Your task to perform on an android device: Search for Mexican restaurants on Maps Image 0: 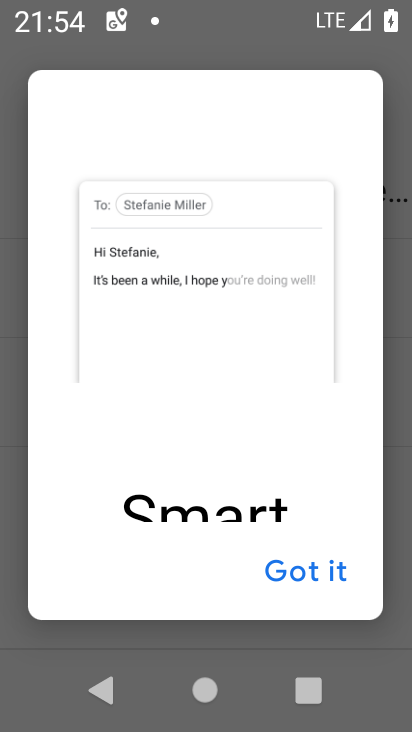
Step 0: press home button
Your task to perform on an android device: Search for Mexican restaurants on Maps Image 1: 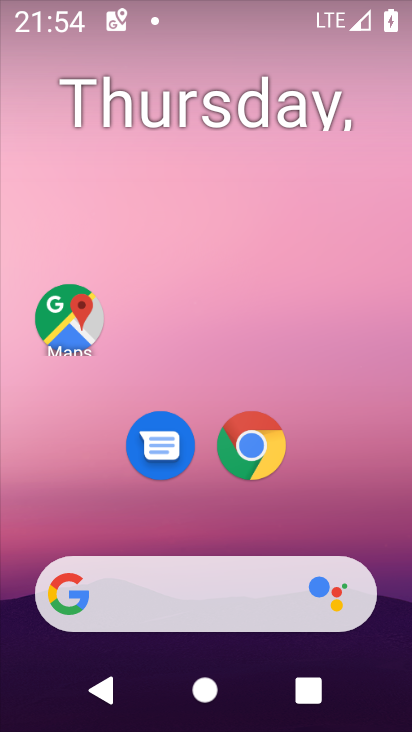
Step 1: drag from (240, 425) to (226, 186)
Your task to perform on an android device: Search for Mexican restaurants on Maps Image 2: 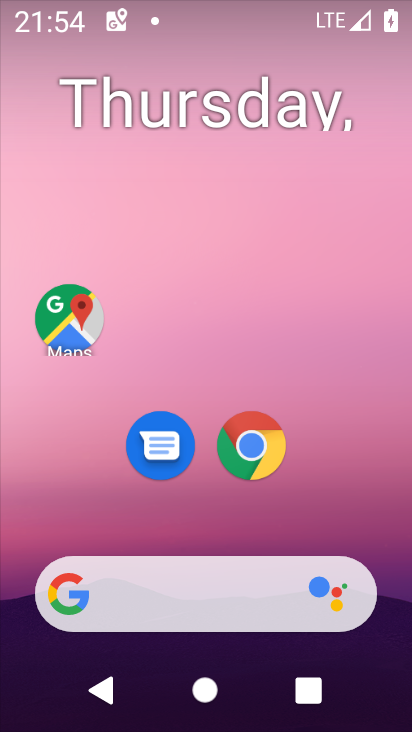
Step 2: drag from (222, 528) to (255, 158)
Your task to perform on an android device: Search for Mexican restaurants on Maps Image 3: 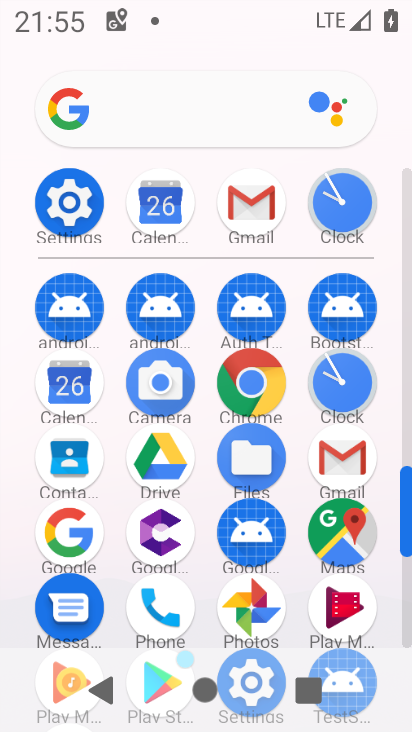
Step 3: click (352, 539)
Your task to perform on an android device: Search for Mexican restaurants on Maps Image 4: 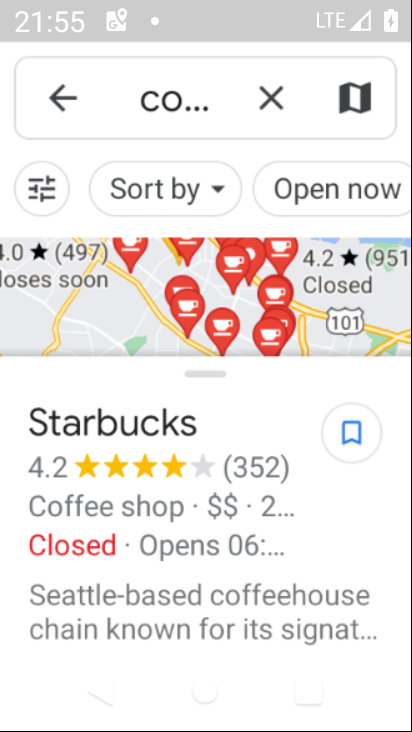
Step 4: click (267, 109)
Your task to perform on an android device: Search for Mexican restaurants on Maps Image 5: 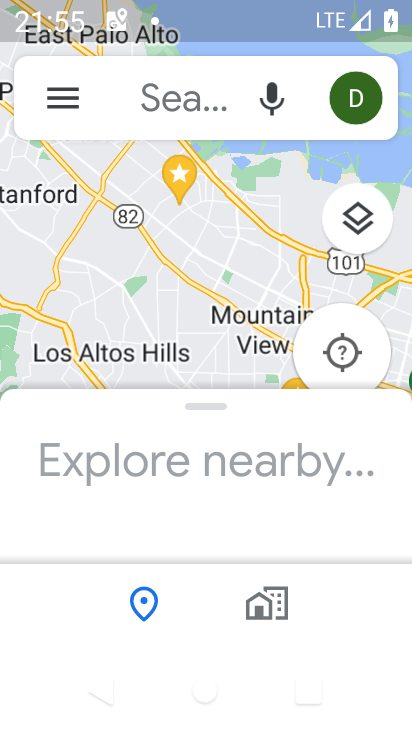
Step 5: click (168, 111)
Your task to perform on an android device: Search for Mexican restaurants on Maps Image 6: 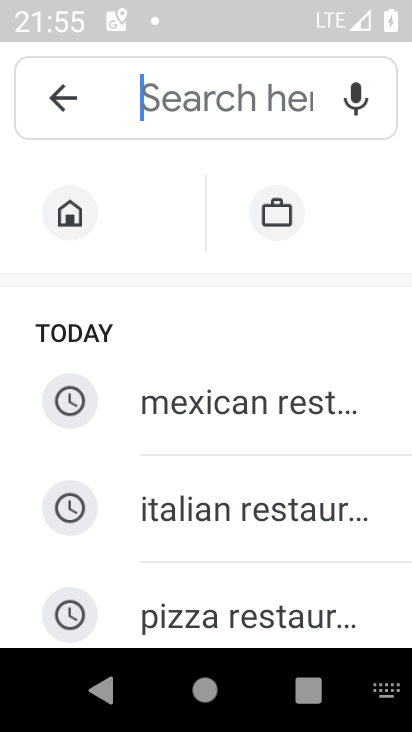
Step 6: type "mexican restaurants"
Your task to perform on an android device: Search for Mexican restaurants on Maps Image 7: 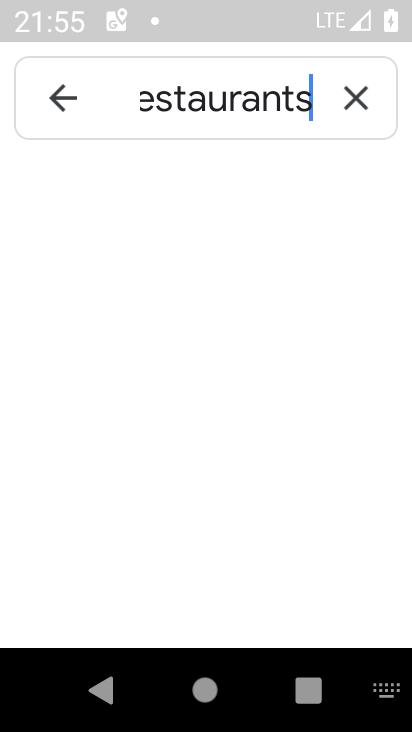
Step 7: type ""
Your task to perform on an android device: Search for Mexican restaurants on Maps Image 8: 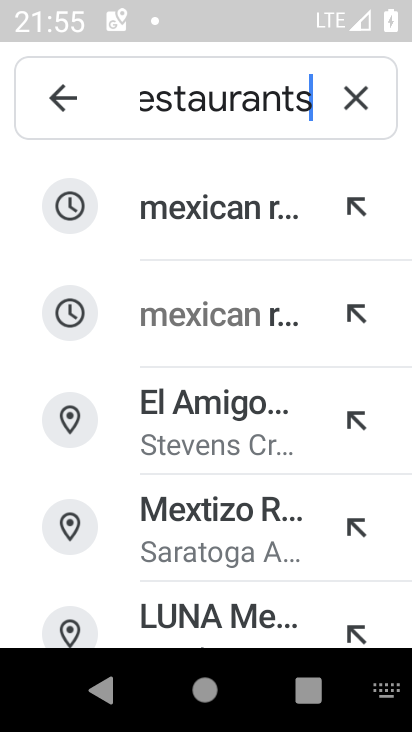
Step 8: click (145, 212)
Your task to perform on an android device: Search for Mexican restaurants on Maps Image 9: 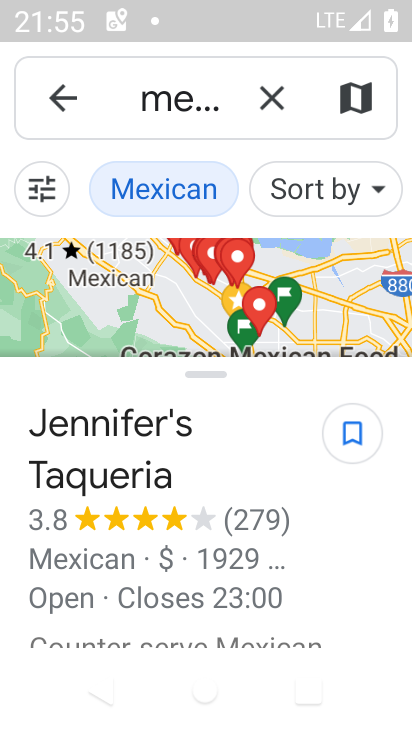
Step 9: task complete